Your task to perform on an android device: Go to privacy settings Image 0: 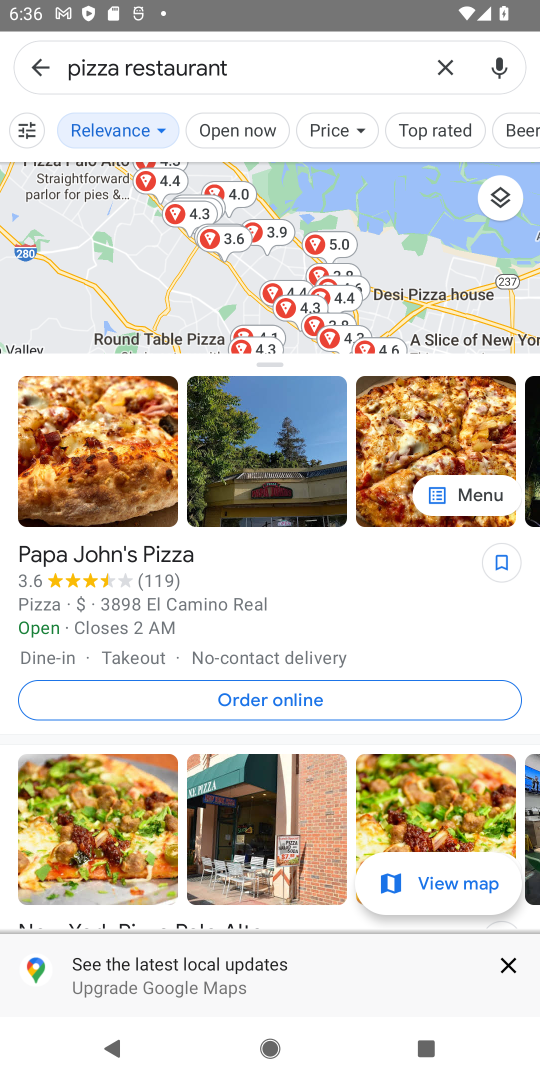
Step 0: press home button
Your task to perform on an android device: Go to privacy settings Image 1: 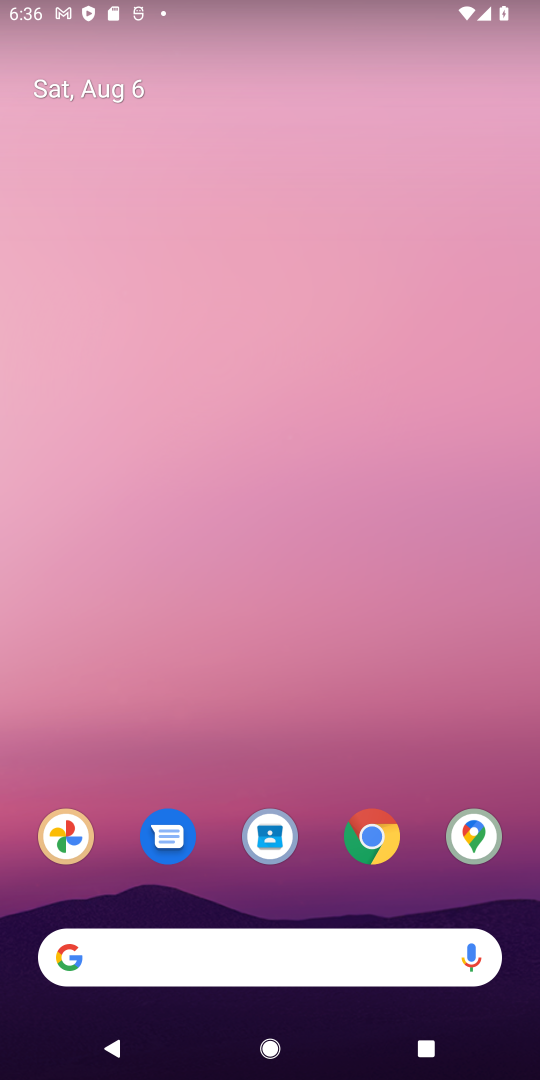
Step 1: drag from (445, 901) to (165, 51)
Your task to perform on an android device: Go to privacy settings Image 2: 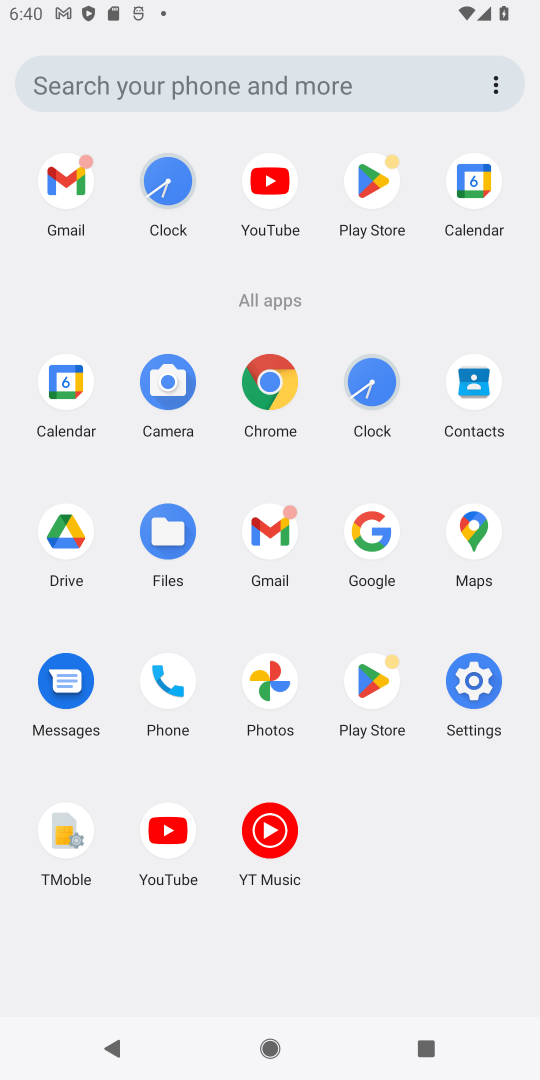
Step 2: click (479, 709)
Your task to perform on an android device: Go to privacy settings Image 3: 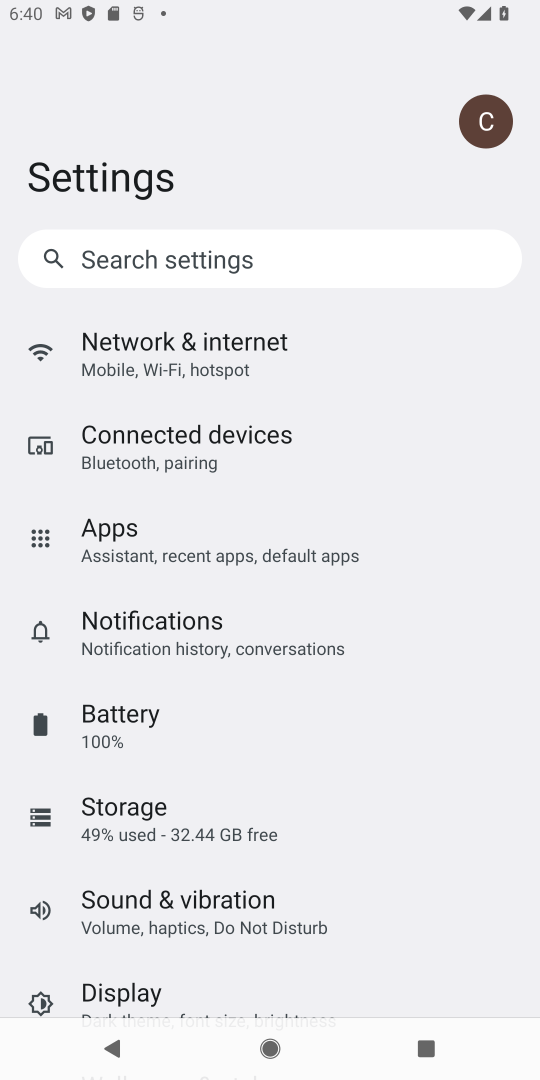
Step 3: drag from (239, 918) to (259, 305)
Your task to perform on an android device: Go to privacy settings Image 4: 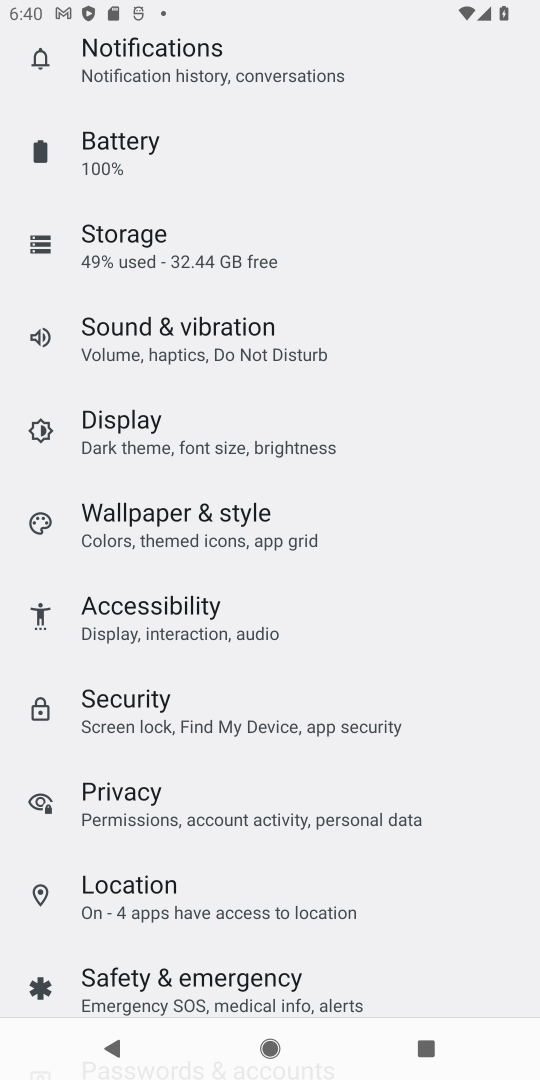
Step 4: drag from (170, 911) to (229, 526)
Your task to perform on an android device: Go to privacy settings Image 5: 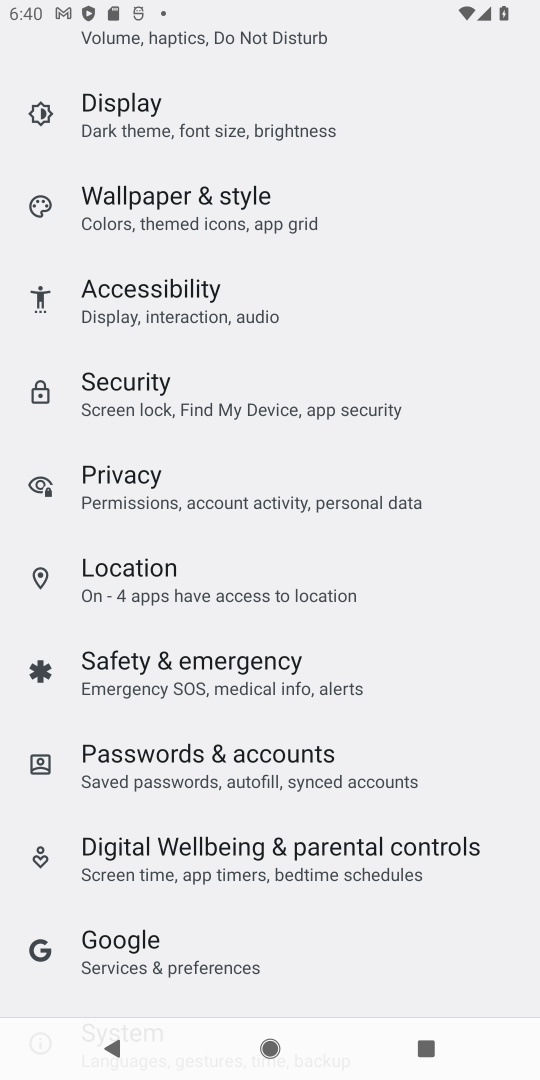
Step 5: click (146, 494)
Your task to perform on an android device: Go to privacy settings Image 6: 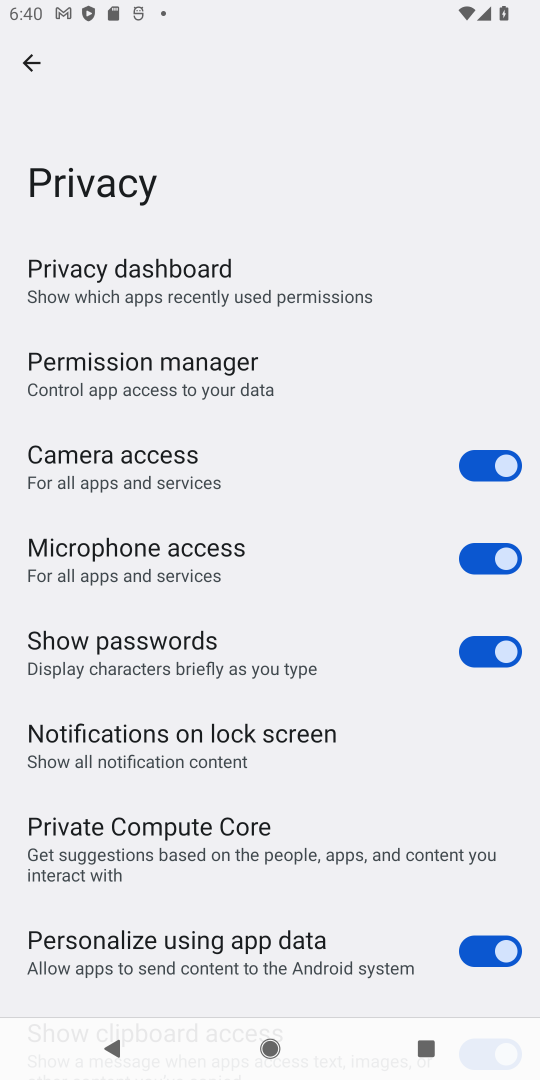
Step 6: task complete